Your task to perform on an android device: check data usage Image 0: 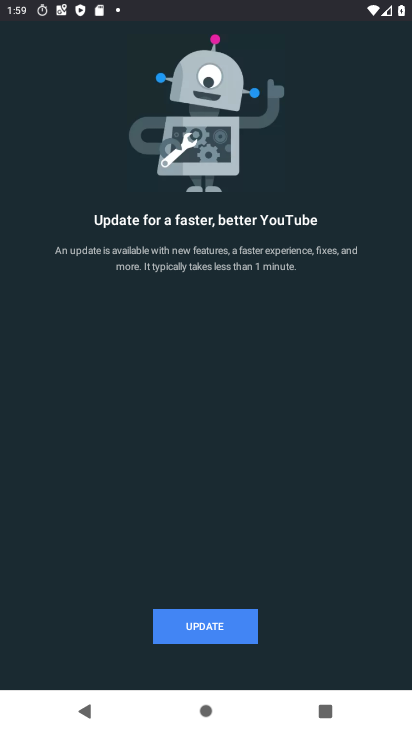
Step 0: press home button
Your task to perform on an android device: check data usage Image 1: 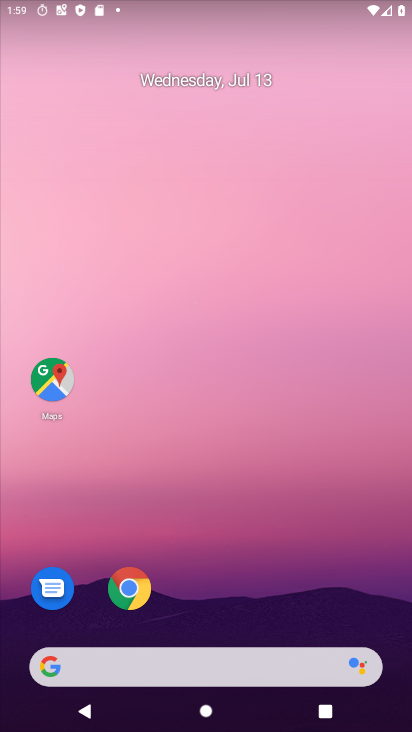
Step 1: drag from (210, 594) to (218, 296)
Your task to perform on an android device: check data usage Image 2: 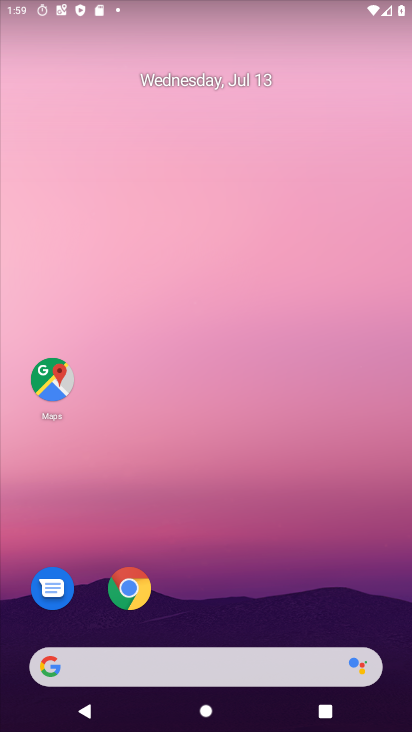
Step 2: drag from (196, 620) to (263, 196)
Your task to perform on an android device: check data usage Image 3: 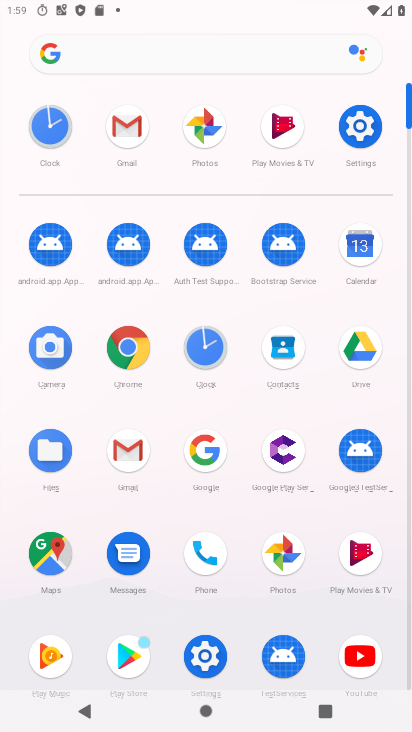
Step 3: click (366, 127)
Your task to perform on an android device: check data usage Image 4: 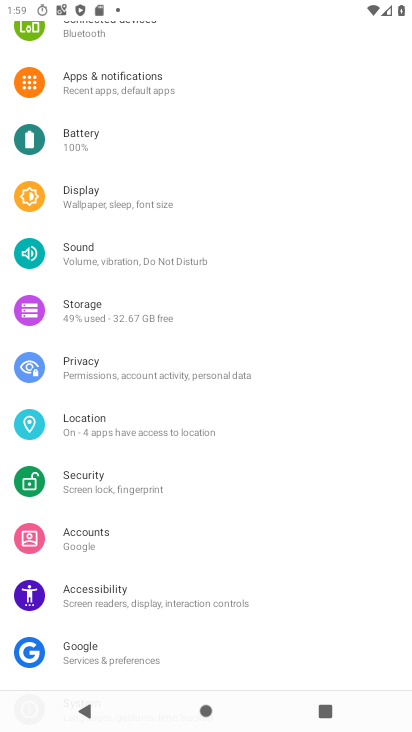
Step 4: drag from (99, 44) to (119, 401)
Your task to perform on an android device: check data usage Image 5: 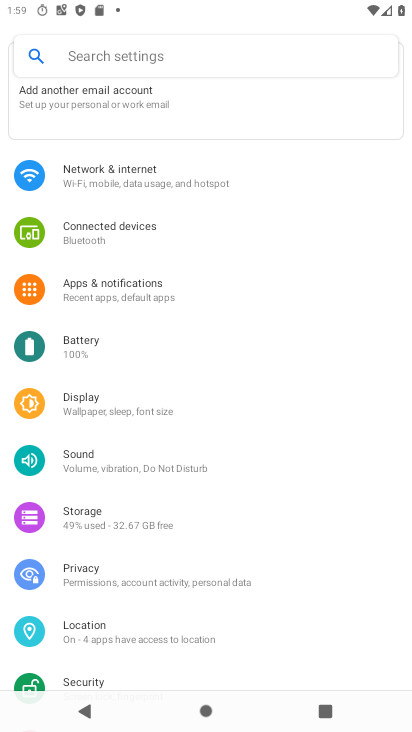
Step 5: click (89, 175)
Your task to perform on an android device: check data usage Image 6: 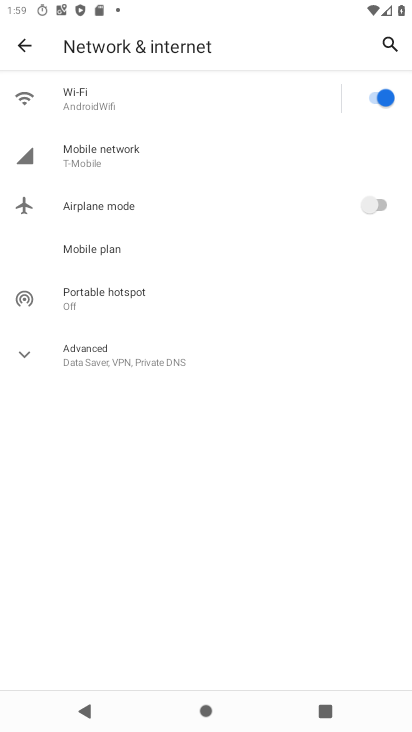
Step 6: click (89, 152)
Your task to perform on an android device: check data usage Image 7: 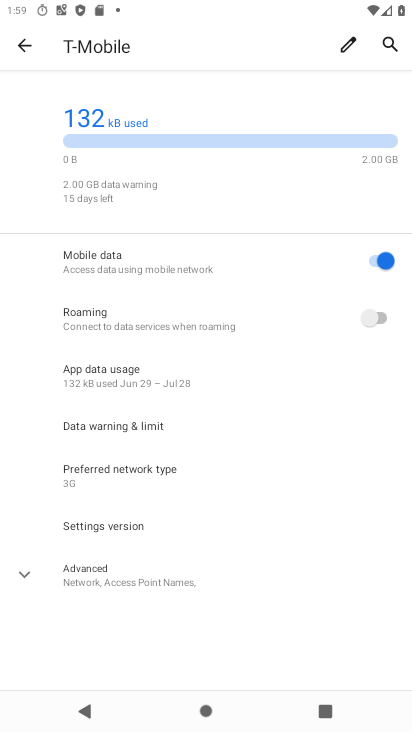
Step 7: task complete